Your task to perform on an android device: Open battery settings Image 0: 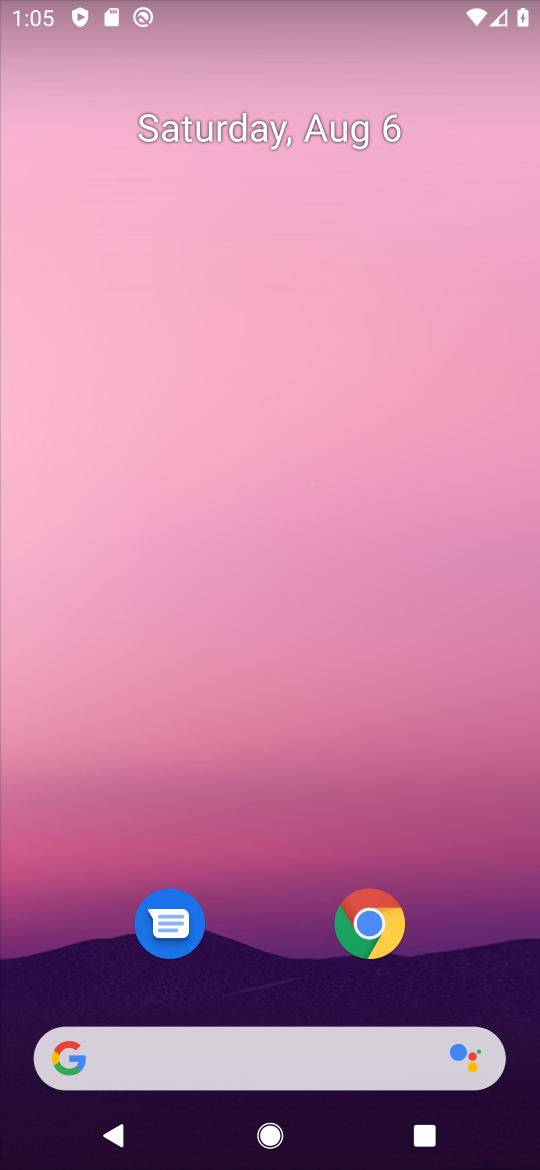
Step 0: drag from (230, 923) to (247, 549)
Your task to perform on an android device: Open battery settings Image 1: 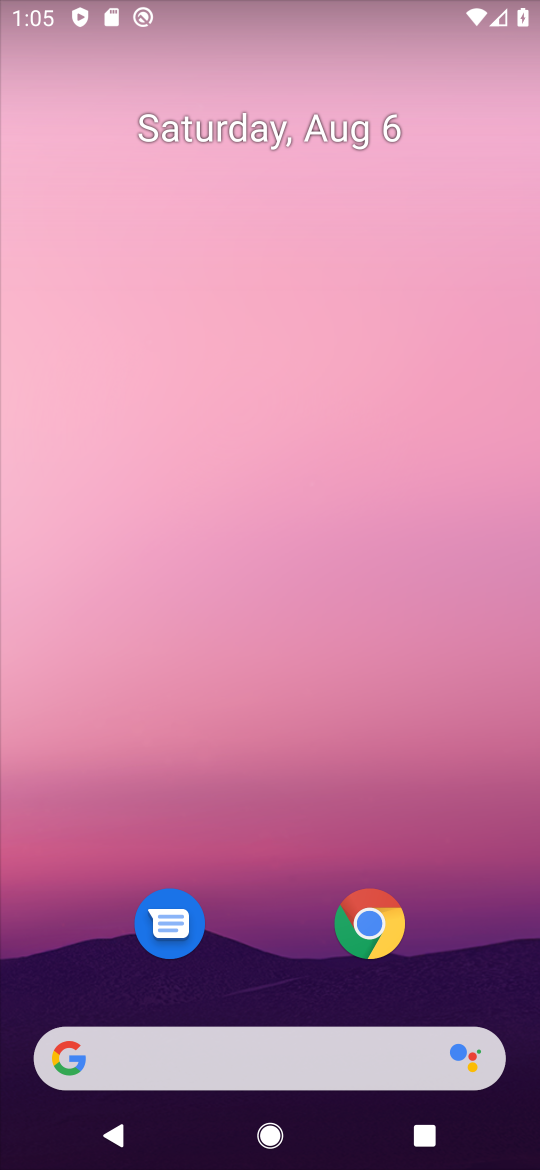
Step 1: drag from (261, 828) to (287, 318)
Your task to perform on an android device: Open battery settings Image 2: 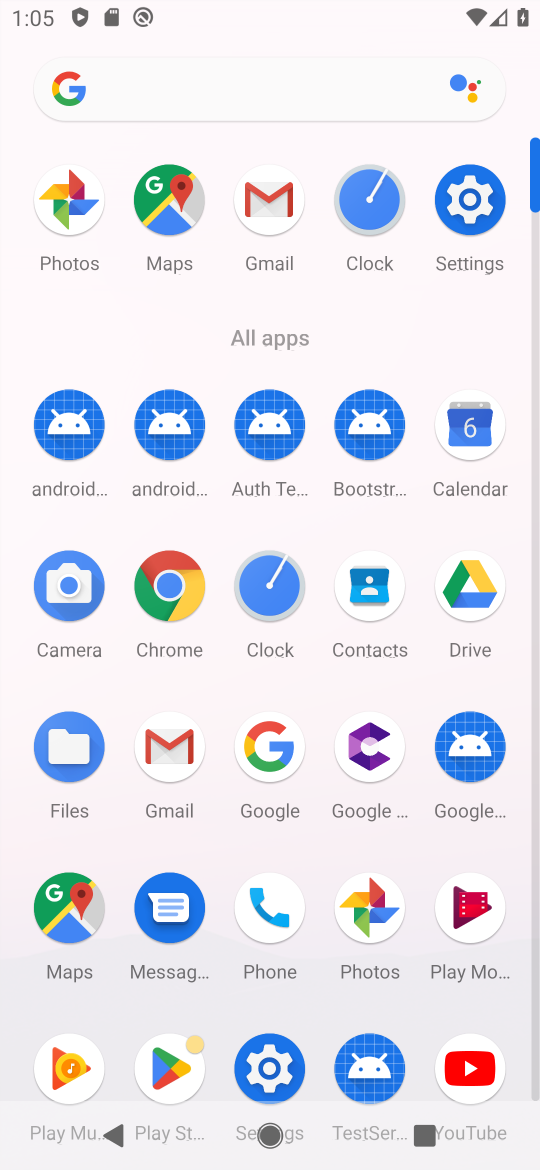
Step 2: click (479, 205)
Your task to perform on an android device: Open battery settings Image 3: 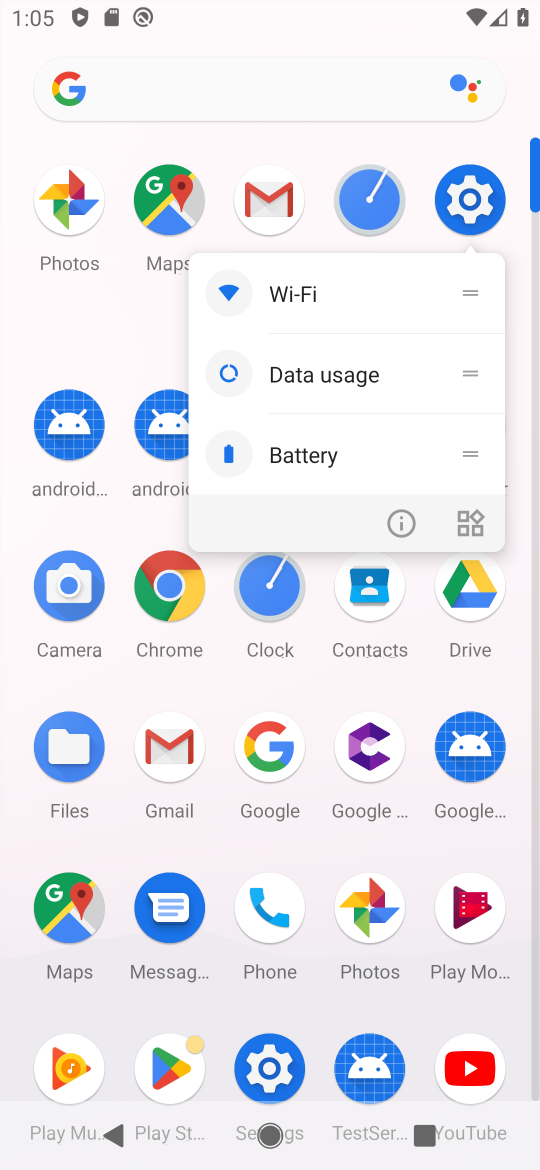
Step 3: click (384, 527)
Your task to perform on an android device: Open battery settings Image 4: 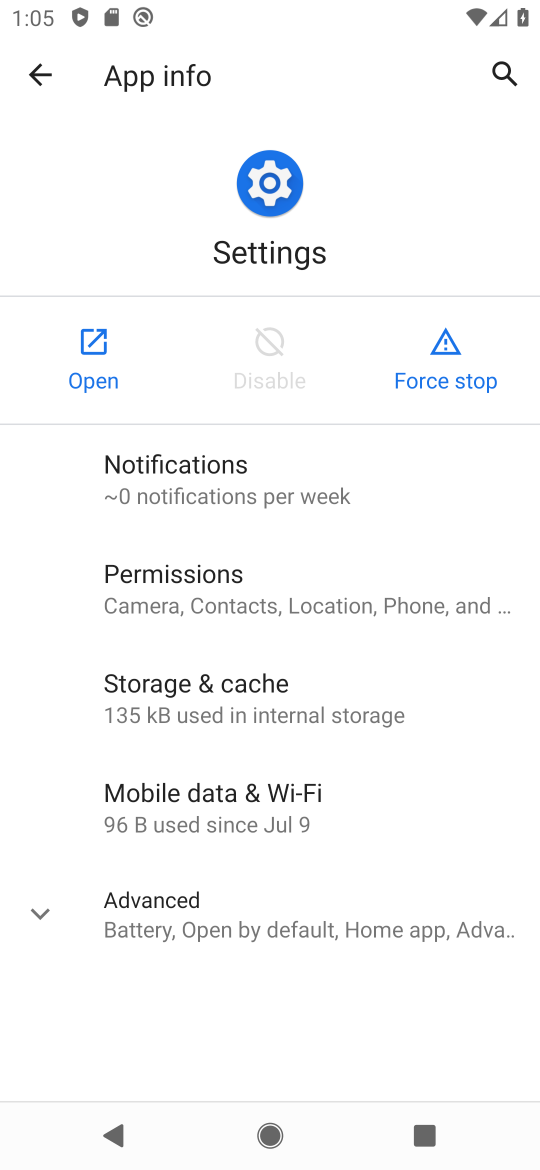
Step 4: click (70, 348)
Your task to perform on an android device: Open battery settings Image 5: 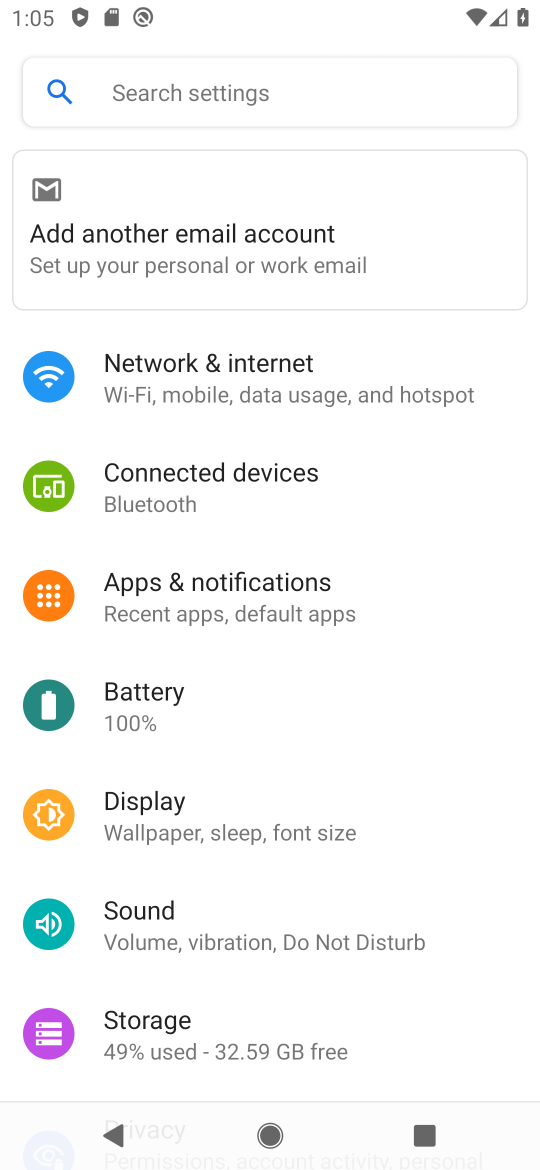
Step 5: click (212, 710)
Your task to perform on an android device: Open battery settings Image 6: 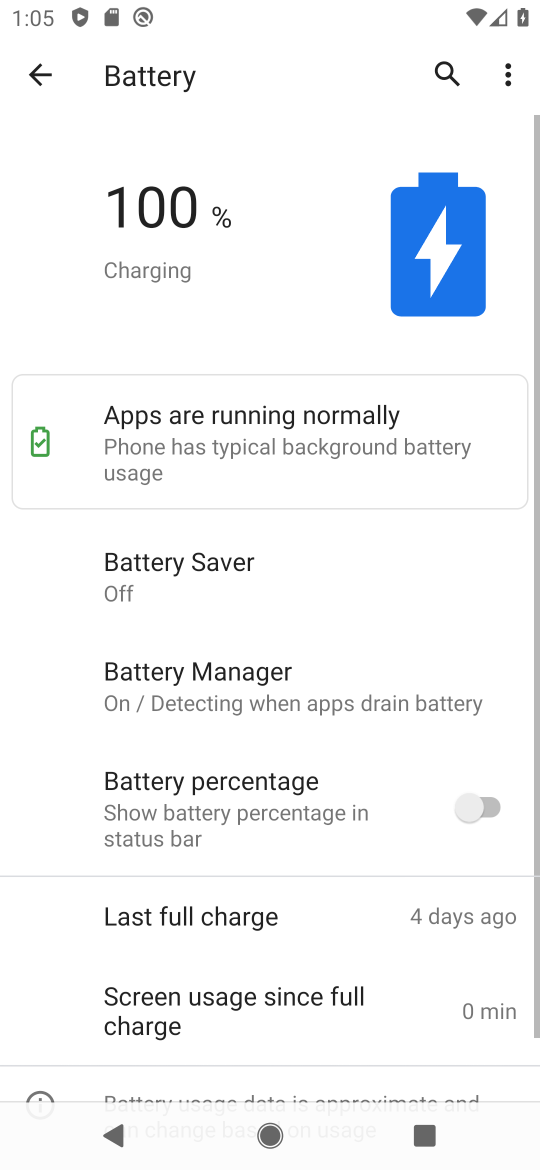
Step 6: task complete